Your task to perform on an android device: Open accessibility settings Image 0: 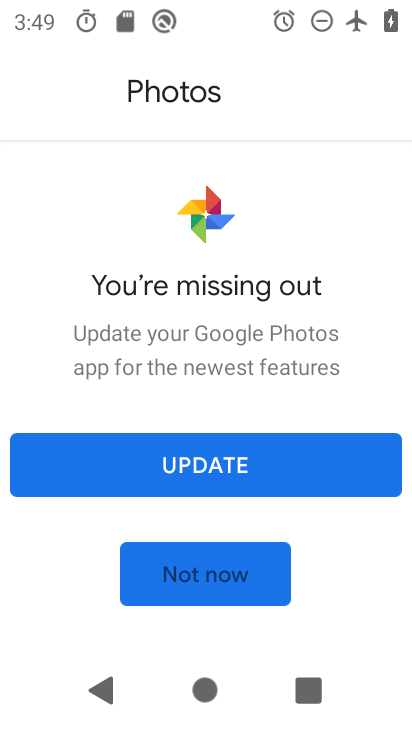
Step 0: press home button
Your task to perform on an android device: Open accessibility settings Image 1: 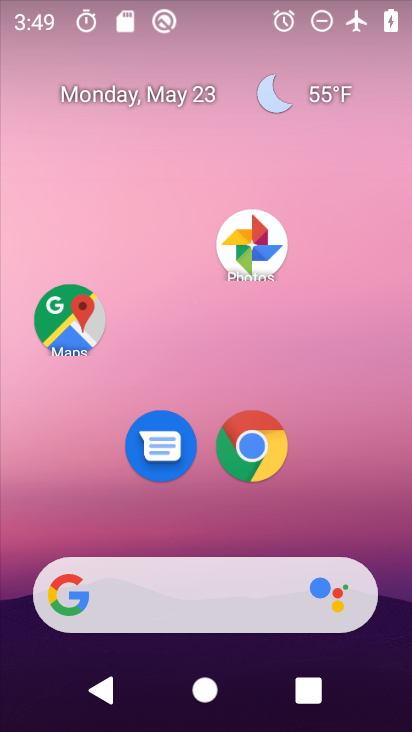
Step 1: drag from (216, 514) to (202, 113)
Your task to perform on an android device: Open accessibility settings Image 2: 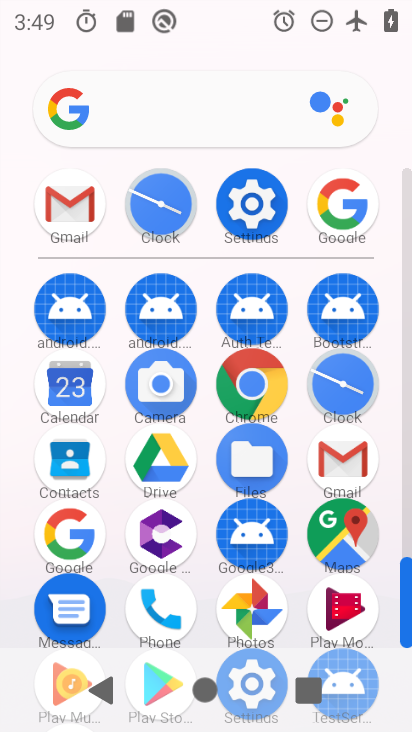
Step 2: click (254, 205)
Your task to perform on an android device: Open accessibility settings Image 3: 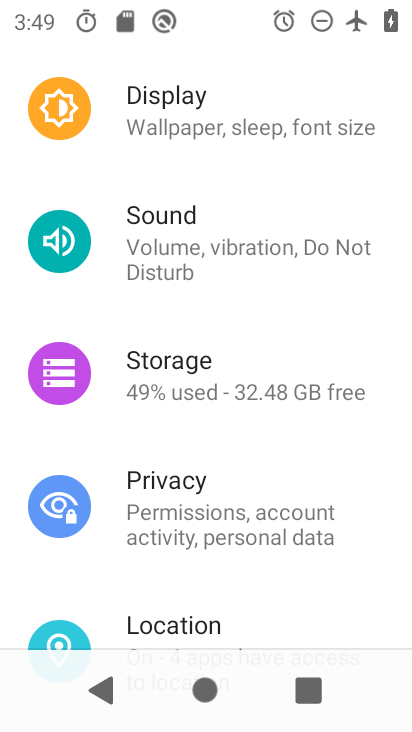
Step 3: drag from (228, 520) to (203, 193)
Your task to perform on an android device: Open accessibility settings Image 4: 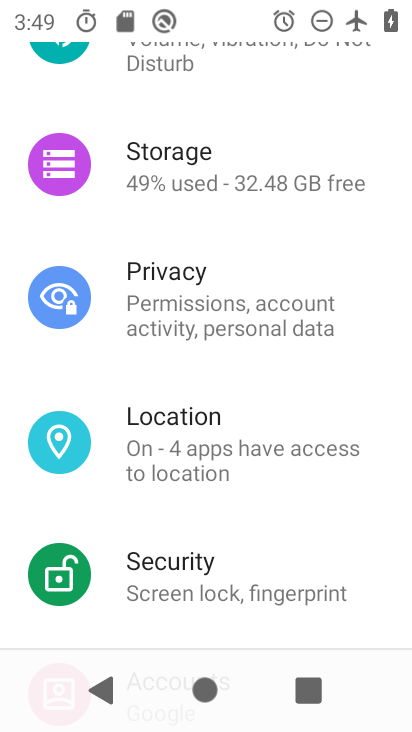
Step 4: drag from (217, 519) to (181, 226)
Your task to perform on an android device: Open accessibility settings Image 5: 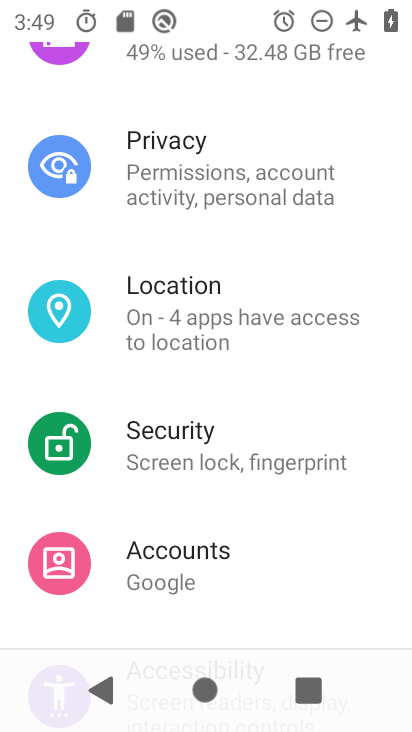
Step 5: drag from (203, 515) to (179, 174)
Your task to perform on an android device: Open accessibility settings Image 6: 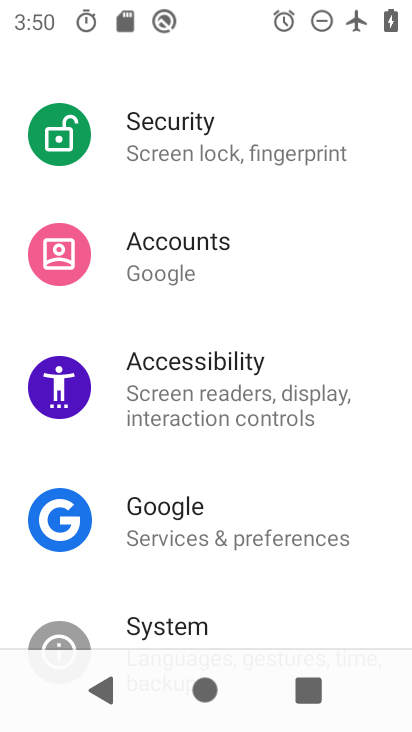
Step 6: click (186, 348)
Your task to perform on an android device: Open accessibility settings Image 7: 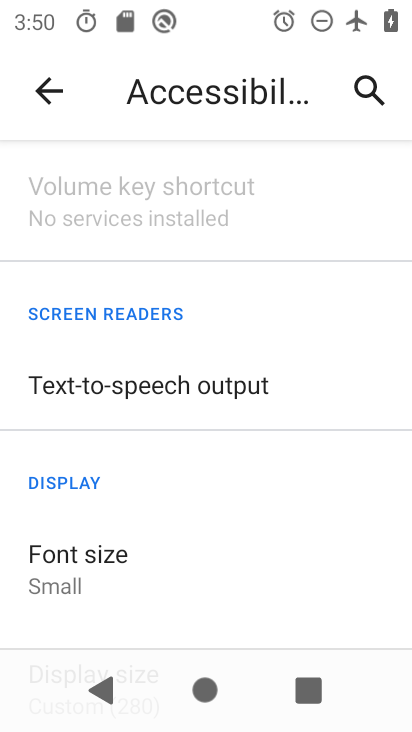
Step 7: task complete